Your task to perform on an android device: set an alarm Image 0: 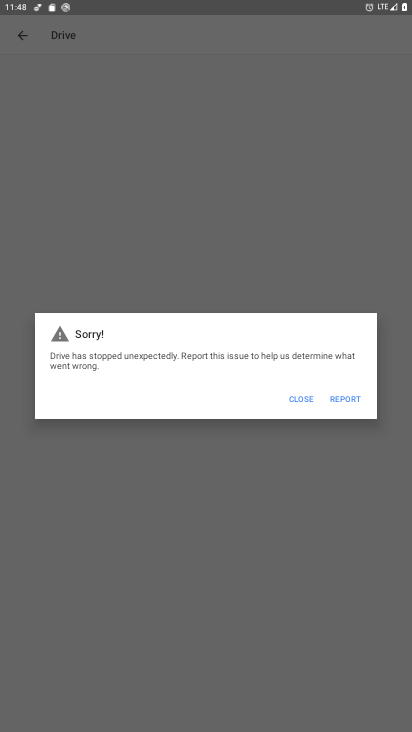
Step 0: press home button
Your task to perform on an android device: set an alarm Image 1: 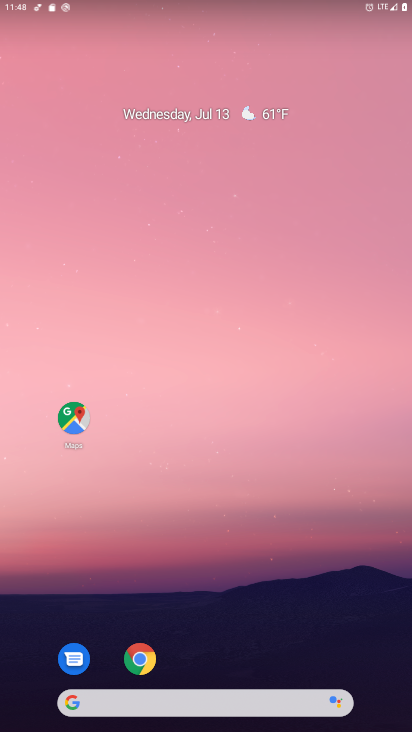
Step 1: drag from (221, 658) to (246, 33)
Your task to perform on an android device: set an alarm Image 2: 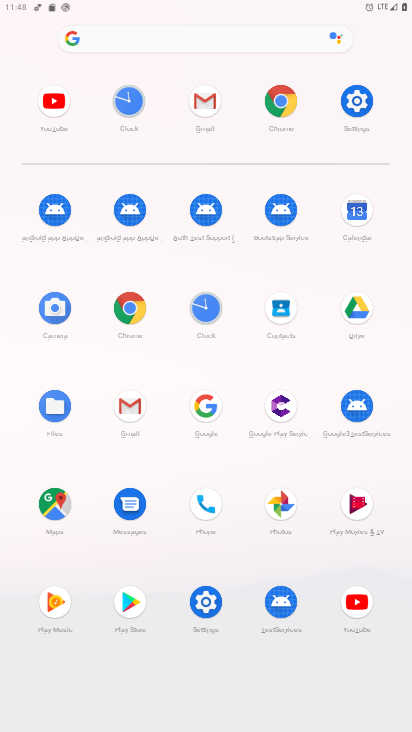
Step 2: click (207, 300)
Your task to perform on an android device: set an alarm Image 3: 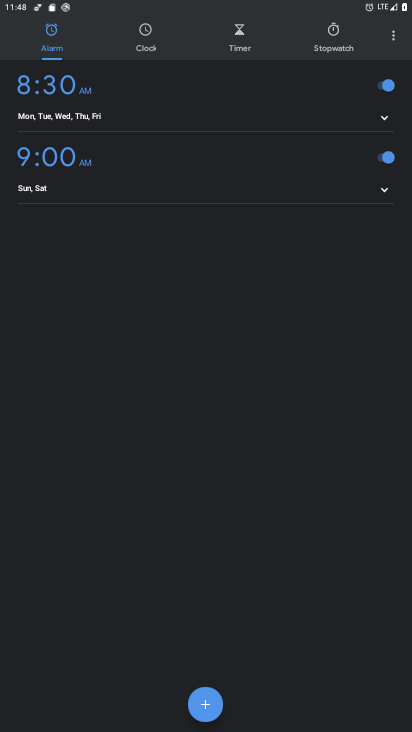
Step 3: click (202, 699)
Your task to perform on an android device: set an alarm Image 4: 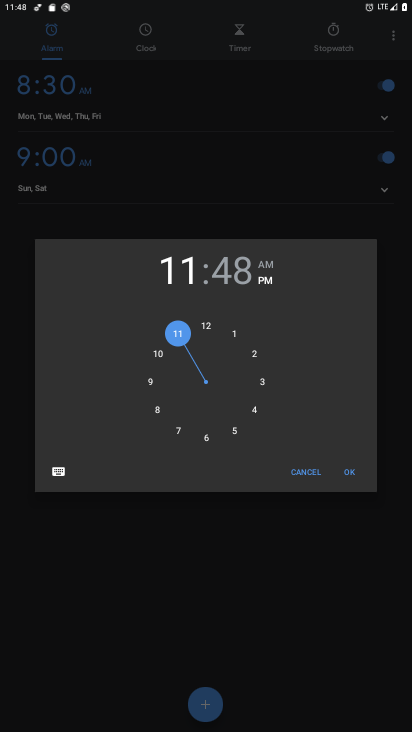
Step 4: click (180, 333)
Your task to perform on an android device: set an alarm Image 5: 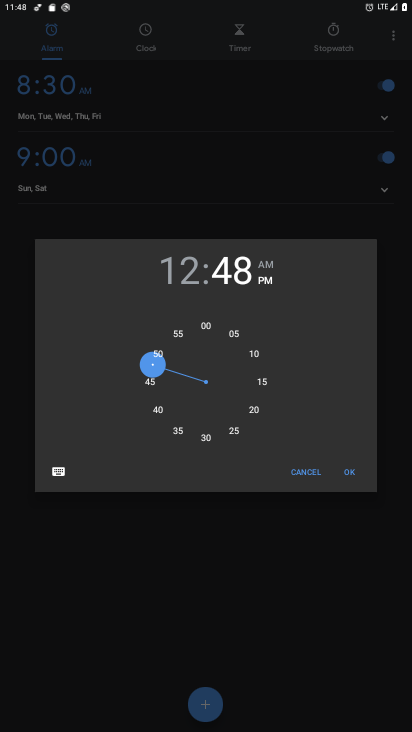
Step 5: drag from (153, 364) to (213, 331)
Your task to perform on an android device: set an alarm Image 6: 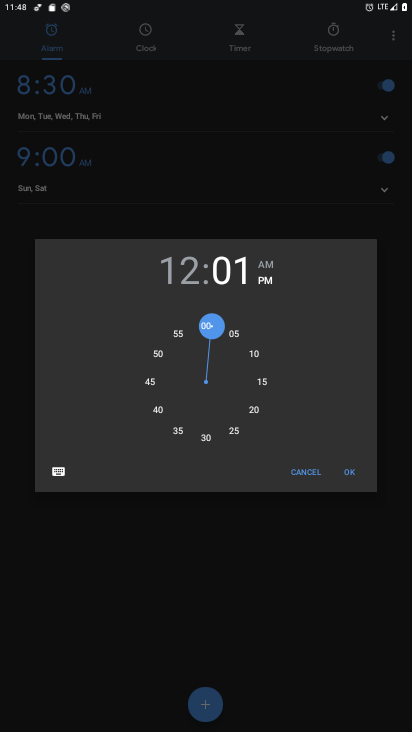
Step 6: click (354, 468)
Your task to perform on an android device: set an alarm Image 7: 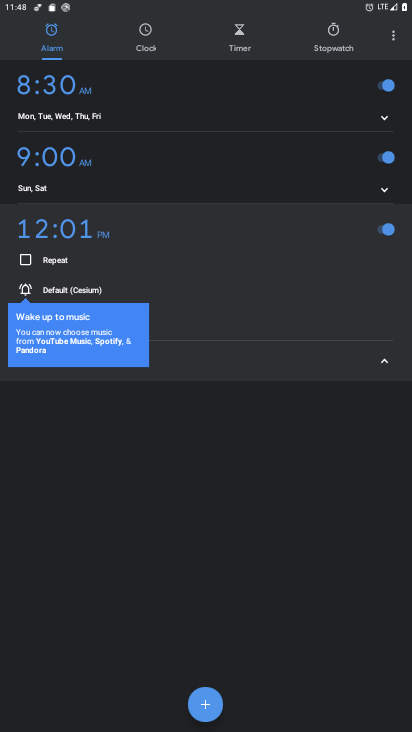
Step 7: task complete